Your task to perform on an android device: toggle wifi Image 0: 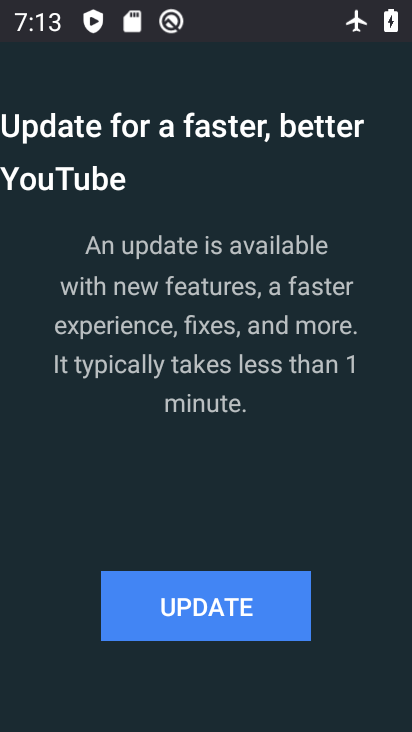
Step 0: press home button
Your task to perform on an android device: toggle wifi Image 1: 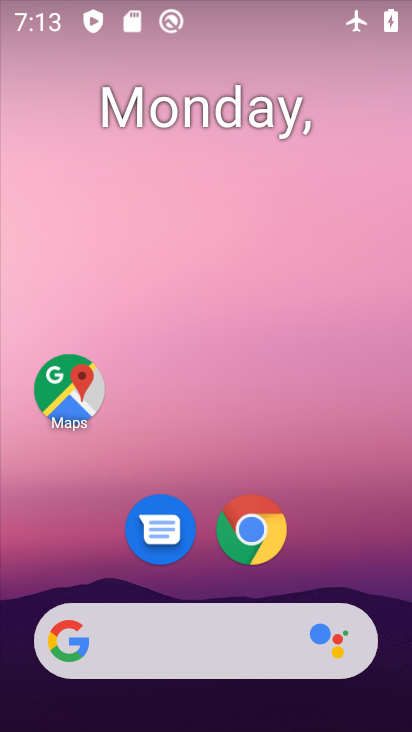
Step 1: drag from (331, 502) to (205, 124)
Your task to perform on an android device: toggle wifi Image 2: 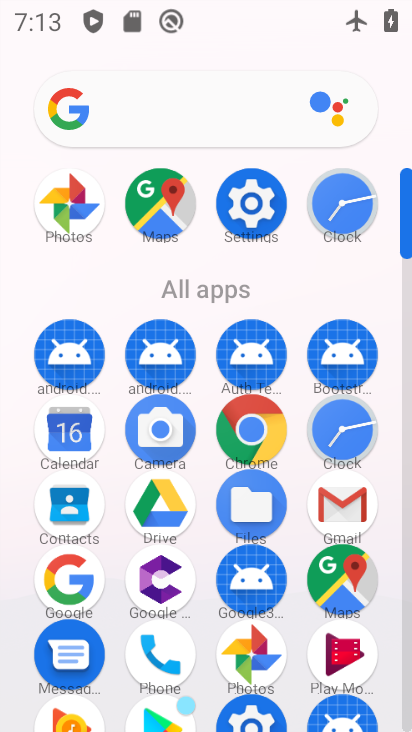
Step 2: click (255, 211)
Your task to perform on an android device: toggle wifi Image 3: 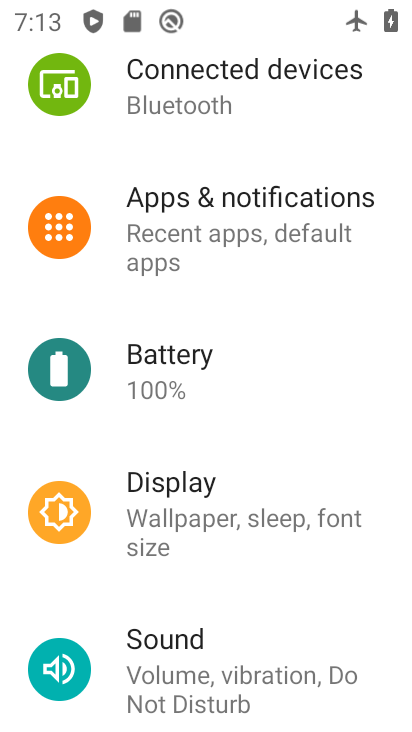
Step 3: drag from (258, 315) to (238, 601)
Your task to perform on an android device: toggle wifi Image 4: 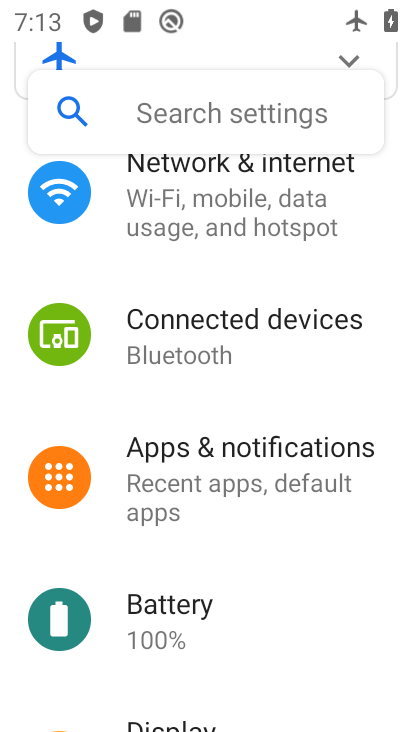
Step 4: drag from (231, 274) to (263, 717)
Your task to perform on an android device: toggle wifi Image 5: 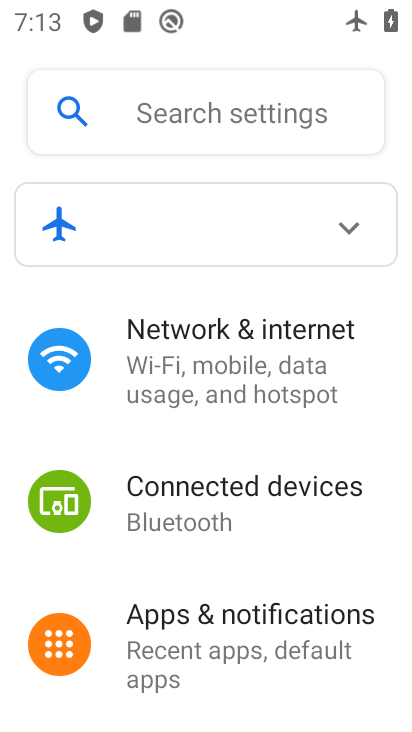
Step 5: click (232, 320)
Your task to perform on an android device: toggle wifi Image 6: 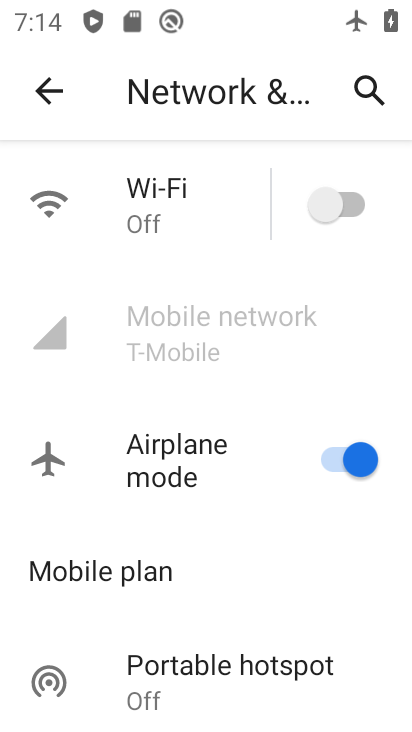
Step 6: click (325, 200)
Your task to perform on an android device: toggle wifi Image 7: 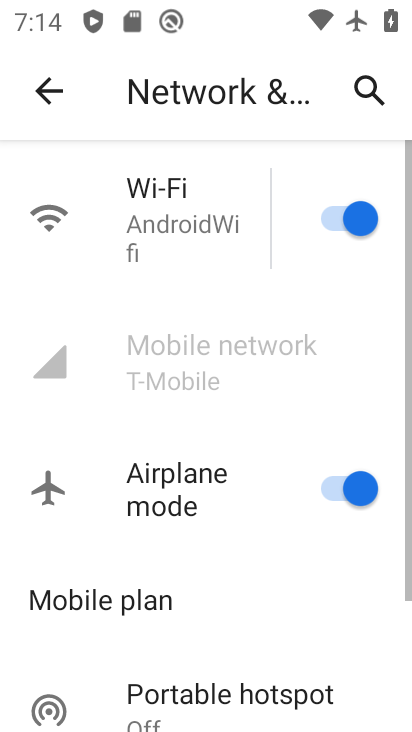
Step 7: task complete